Your task to perform on an android device: Look up the best rated gaming chairs on Target. Image 0: 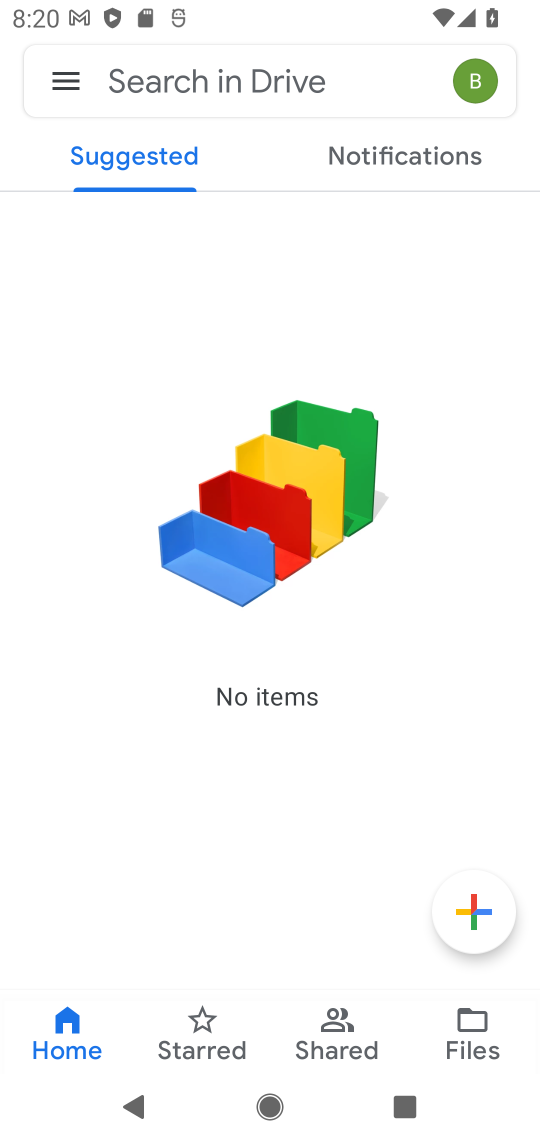
Step 0: press home button
Your task to perform on an android device: Look up the best rated gaming chairs on Target. Image 1: 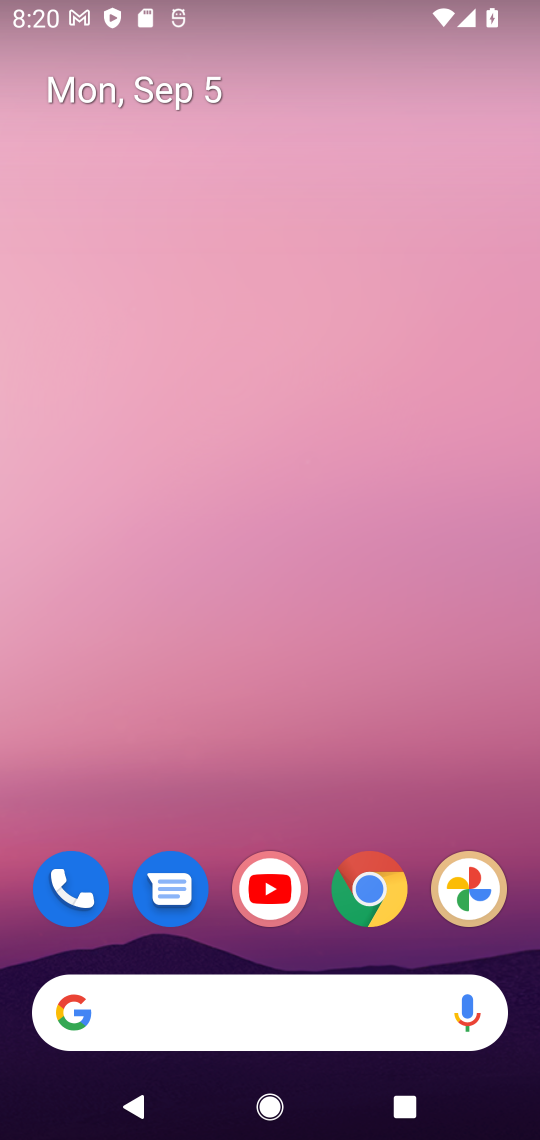
Step 1: click (206, 1012)
Your task to perform on an android device: Look up the best rated gaming chairs on Target. Image 2: 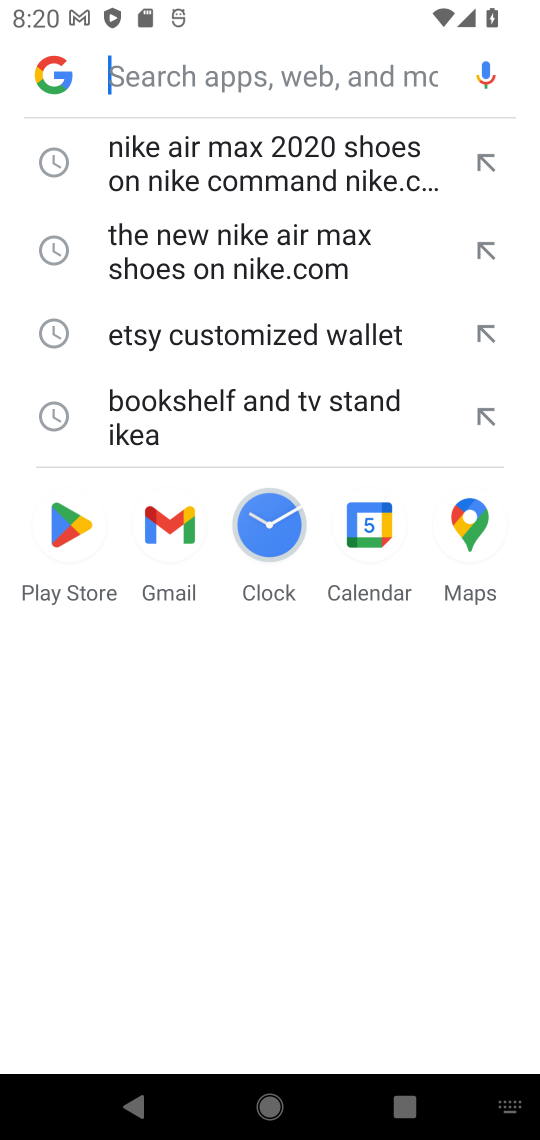
Step 2: click (176, 80)
Your task to perform on an android device: Look up the best rated gaming chairs on Target. Image 3: 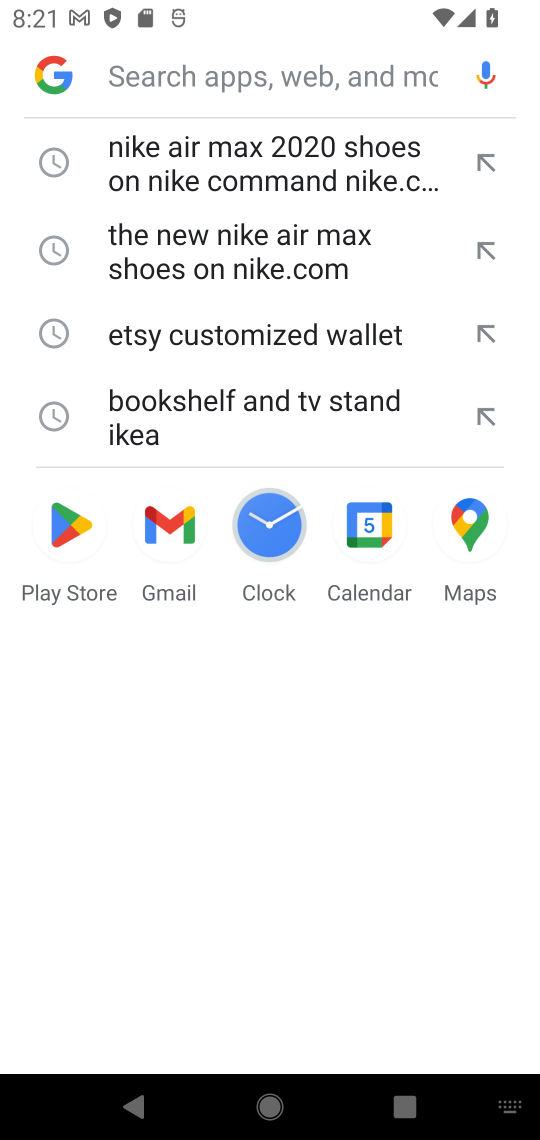
Step 3: type " the best rated gaming chairs on Target."
Your task to perform on an android device: Look up the best rated gaming chairs on Target. Image 4: 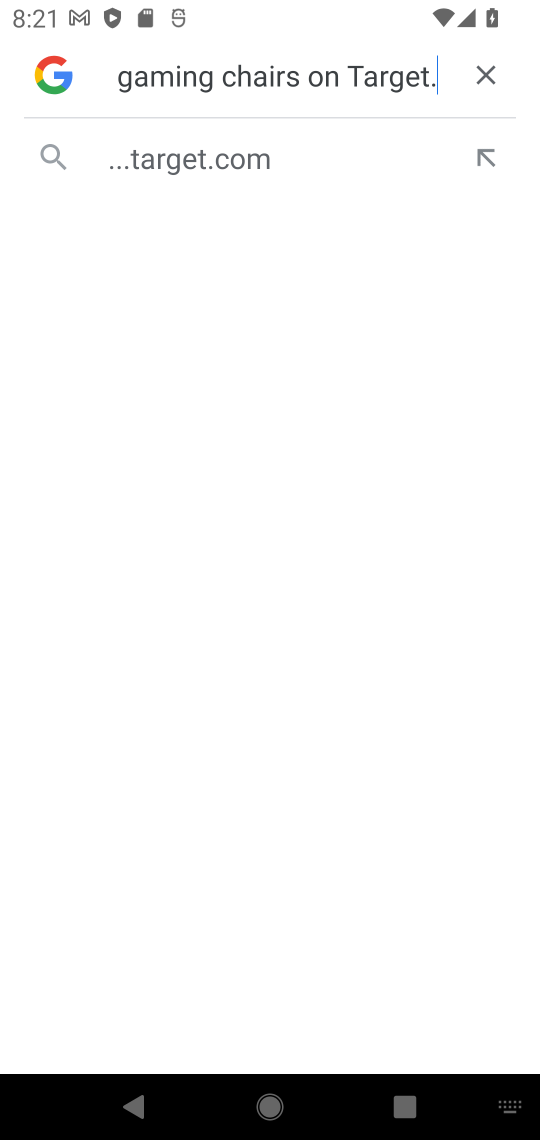
Step 4: click (190, 170)
Your task to perform on an android device: Look up the best rated gaming chairs on Target. Image 5: 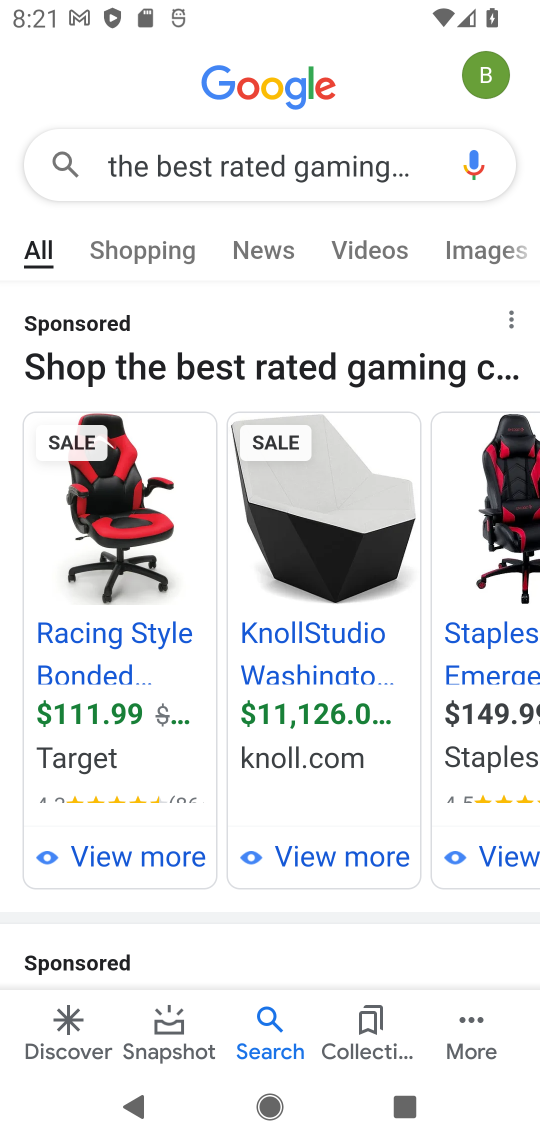
Step 5: task complete